Your task to perform on an android device: set the stopwatch Image 0: 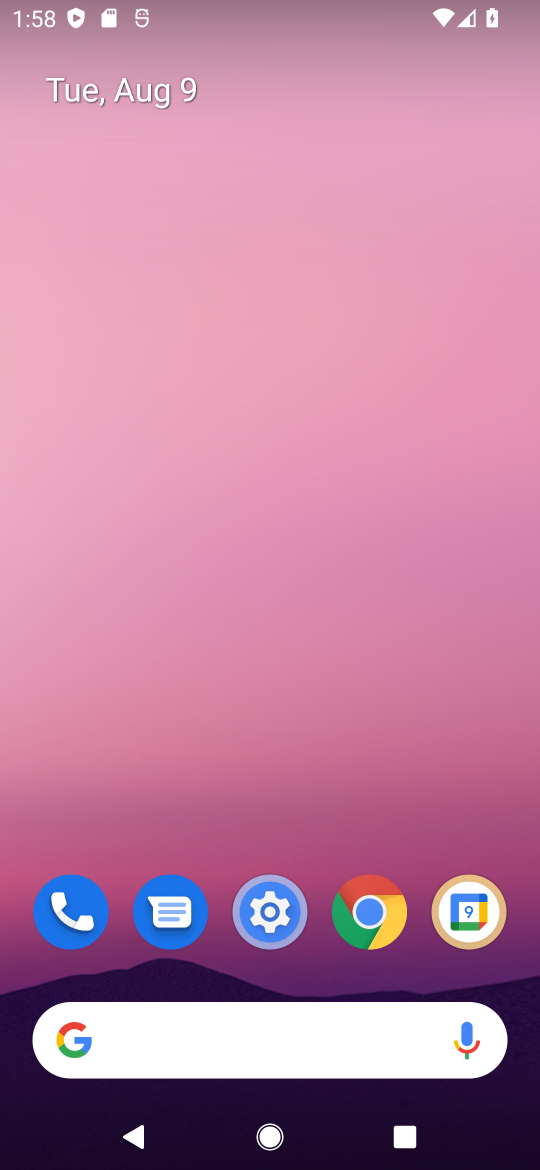
Step 0: drag from (238, 775) to (178, 41)
Your task to perform on an android device: set the stopwatch Image 1: 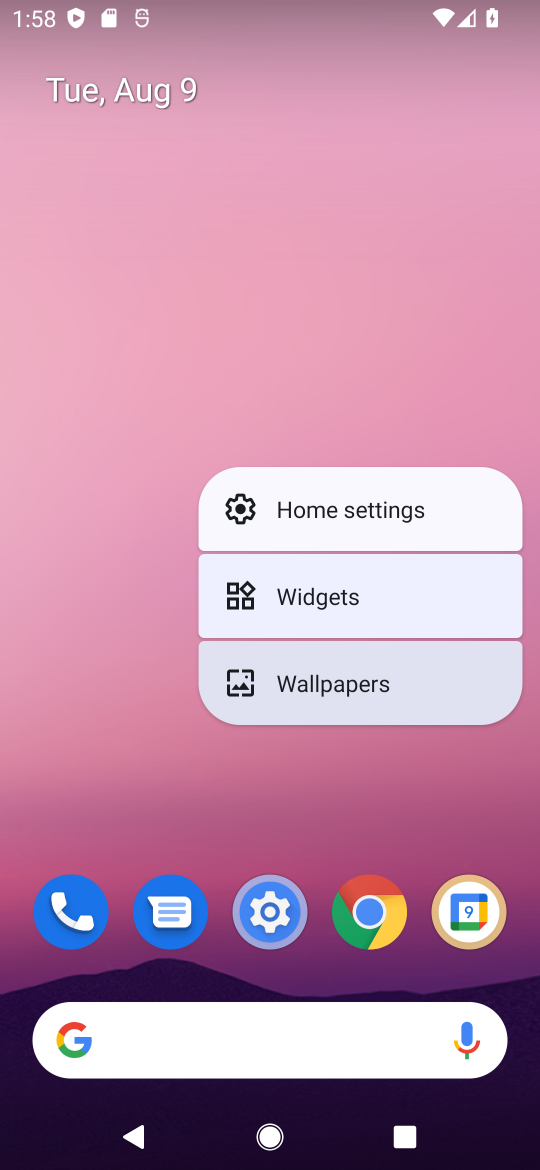
Step 1: click (140, 217)
Your task to perform on an android device: set the stopwatch Image 2: 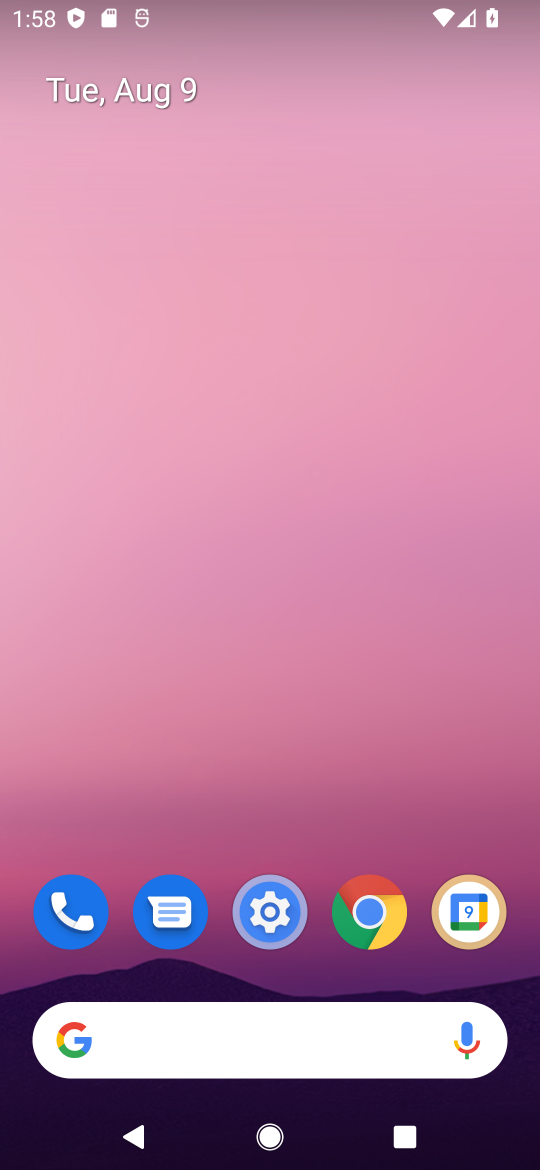
Step 2: drag from (374, 834) to (255, 296)
Your task to perform on an android device: set the stopwatch Image 3: 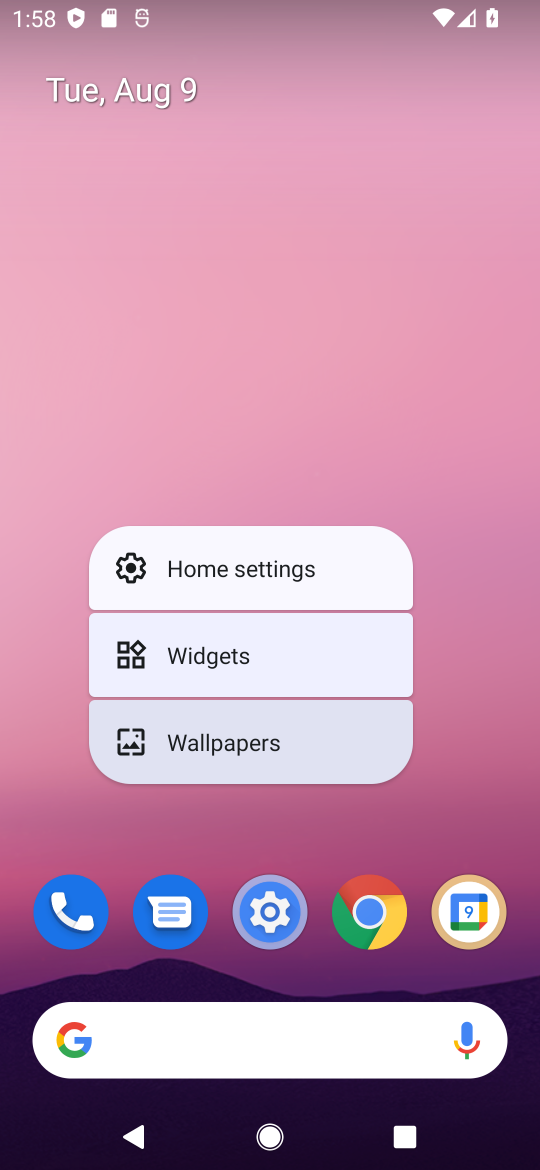
Step 3: click (262, 397)
Your task to perform on an android device: set the stopwatch Image 4: 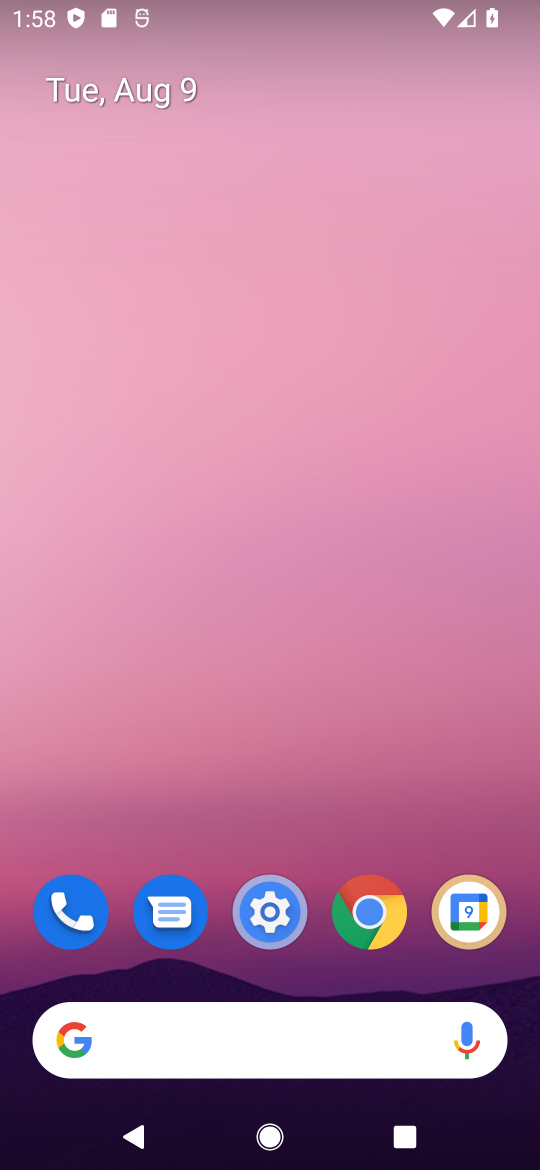
Step 4: drag from (283, 798) to (297, 199)
Your task to perform on an android device: set the stopwatch Image 5: 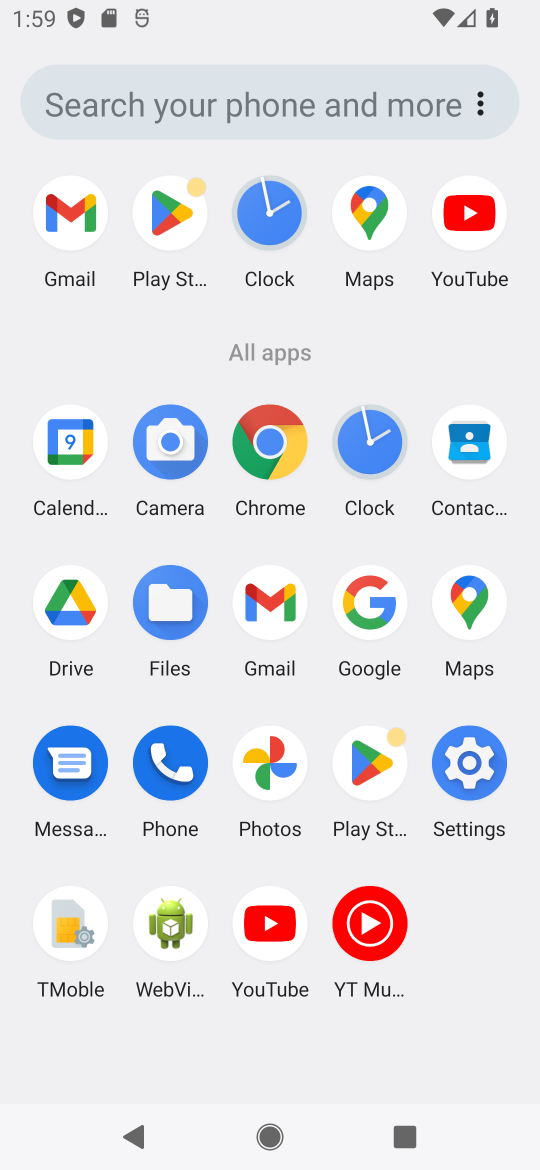
Step 5: click (367, 454)
Your task to perform on an android device: set the stopwatch Image 6: 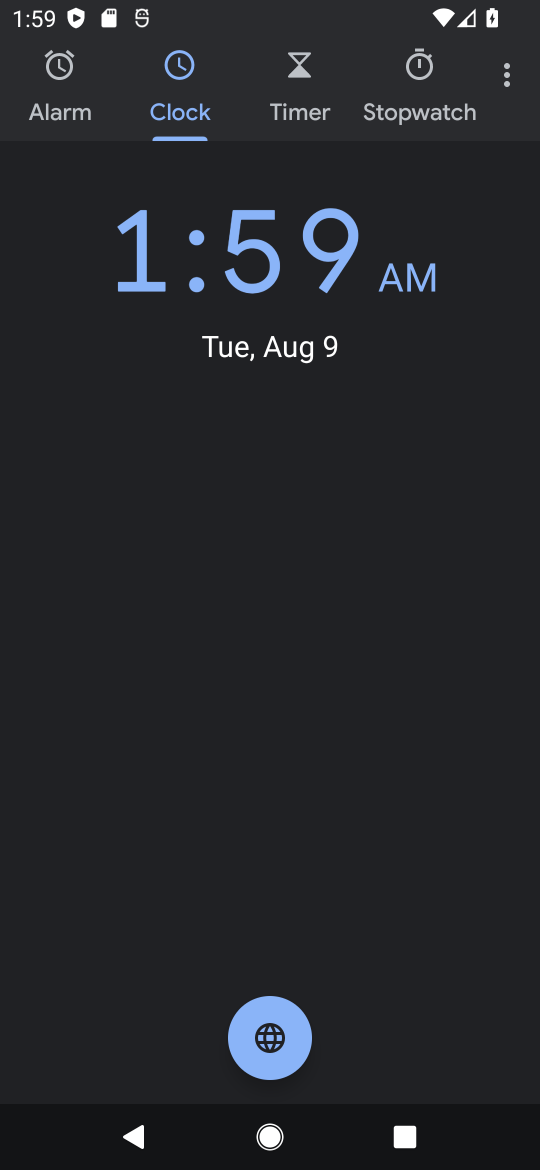
Step 6: click (417, 71)
Your task to perform on an android device: set the stopwatch Image 7: 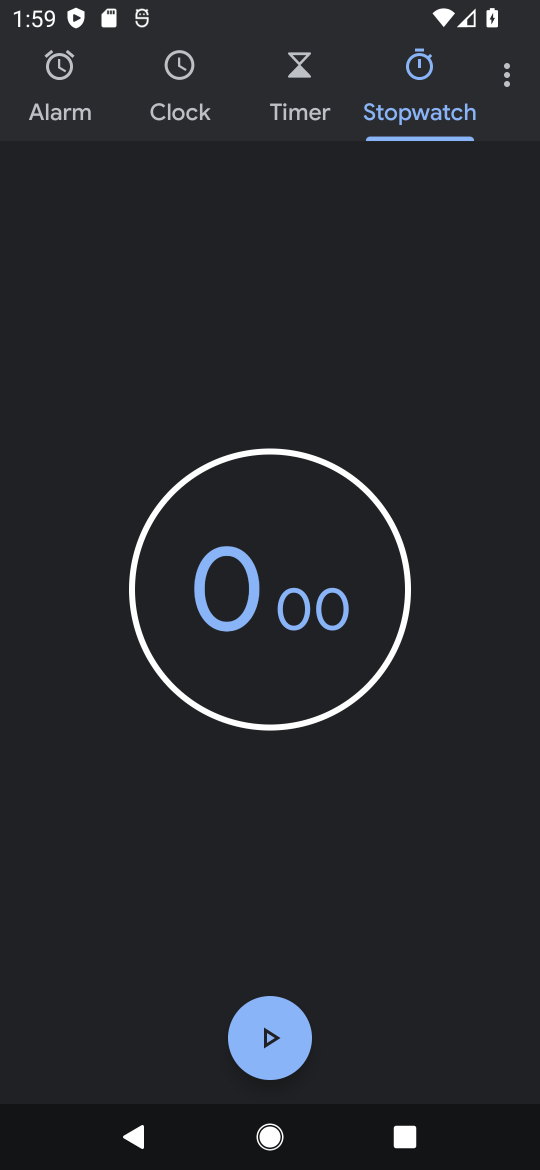
Step 7: task complete